Your task to perform on an android device: Search for a new desk on IKEA. Image 0: 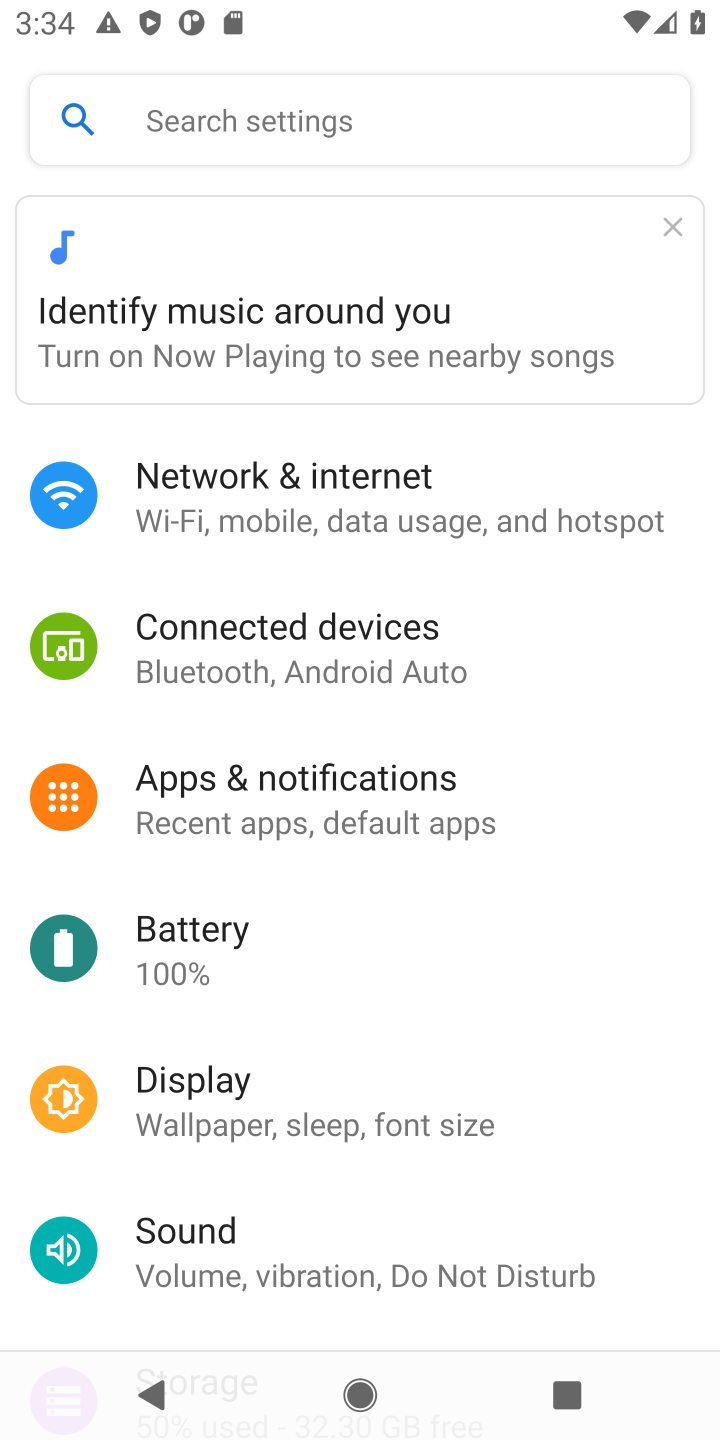
Step 0: press home button
Your task to perform on an android device: Search for a new desk on IKEA. Image 1: 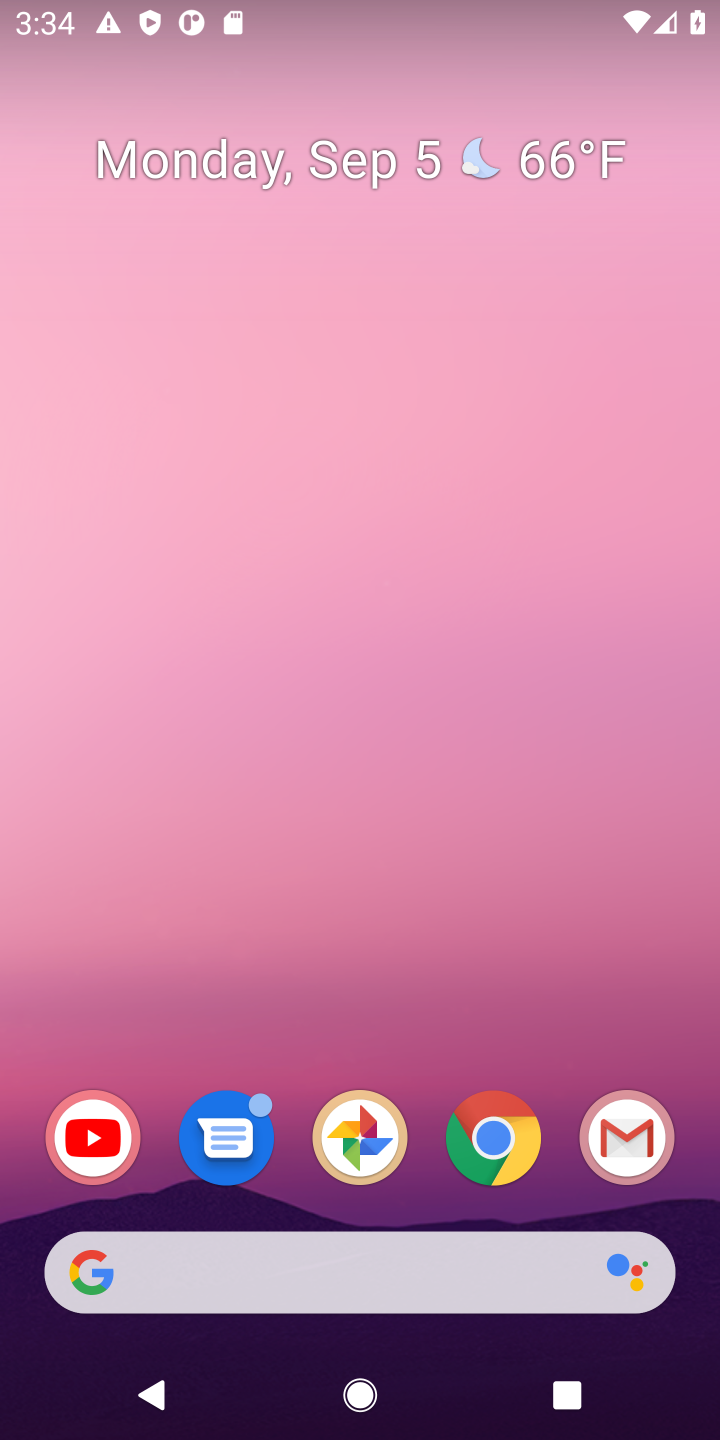
Step 1: click (463, 1136)
Your task to perform on an android device: Search for a new desk on IKEA. Image 2: 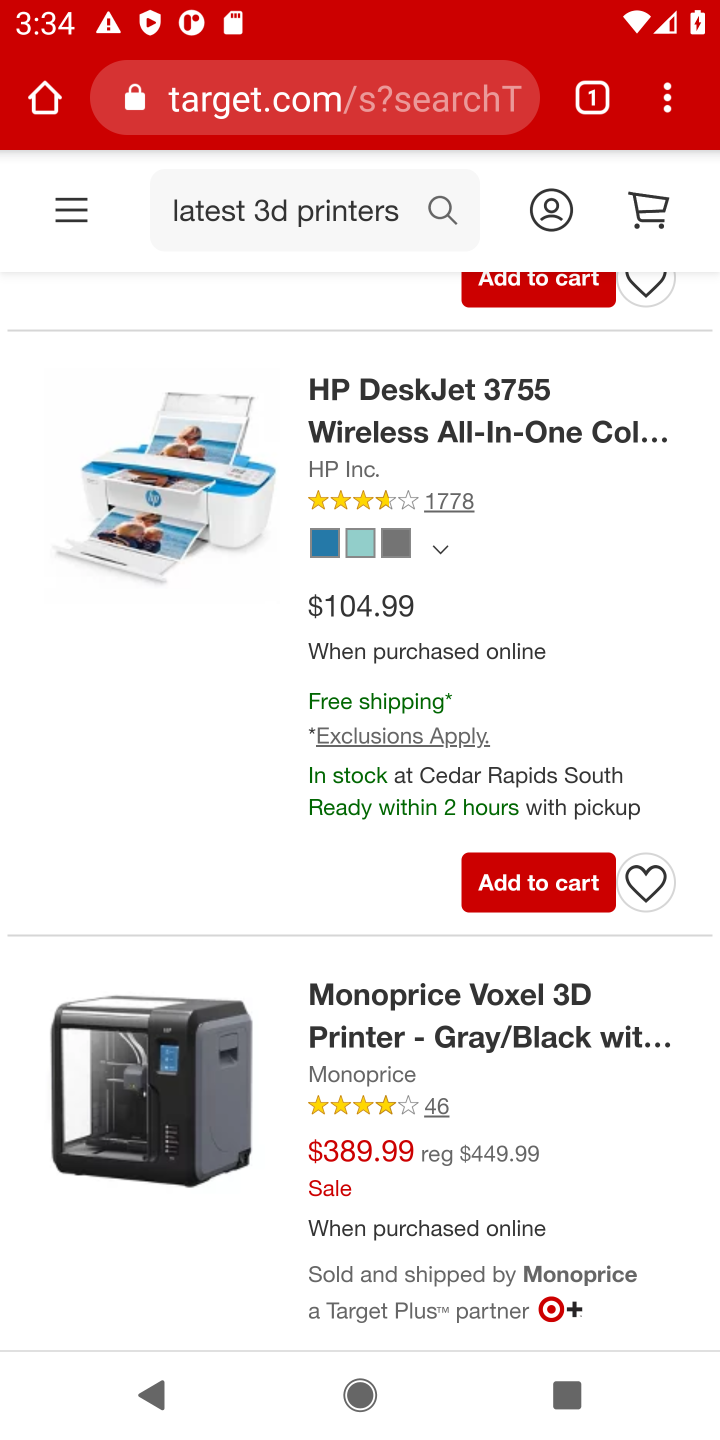
Step 2: click (359, 90)
Your task to perform on an android device: Search for a new desk on IKEA. Image 3: 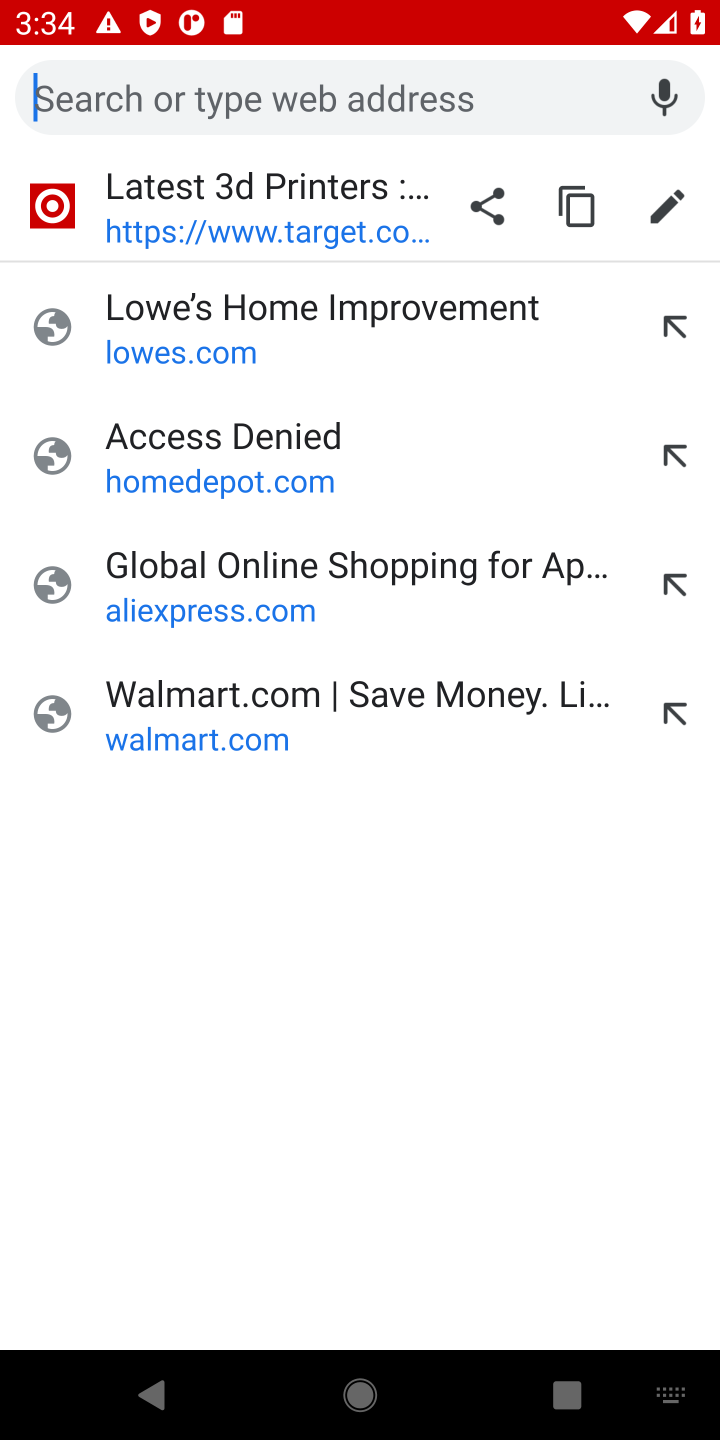
Step 3: type "ikea"
Your task to perform on an android device: Search for a new desk on IKEA. Image 4: 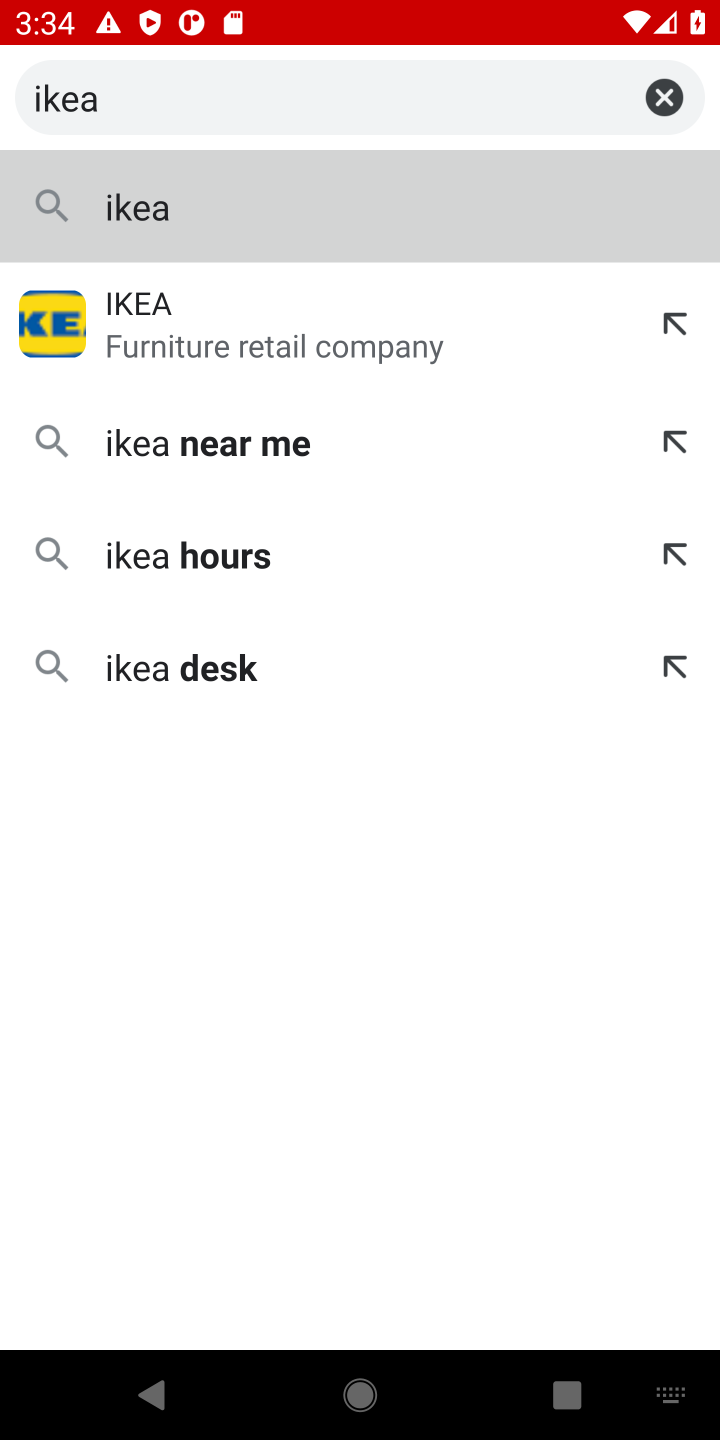
Step 4: click (395, 322)
Your task to perform on an android device: Search for a new desk on IKEA. Image 5: 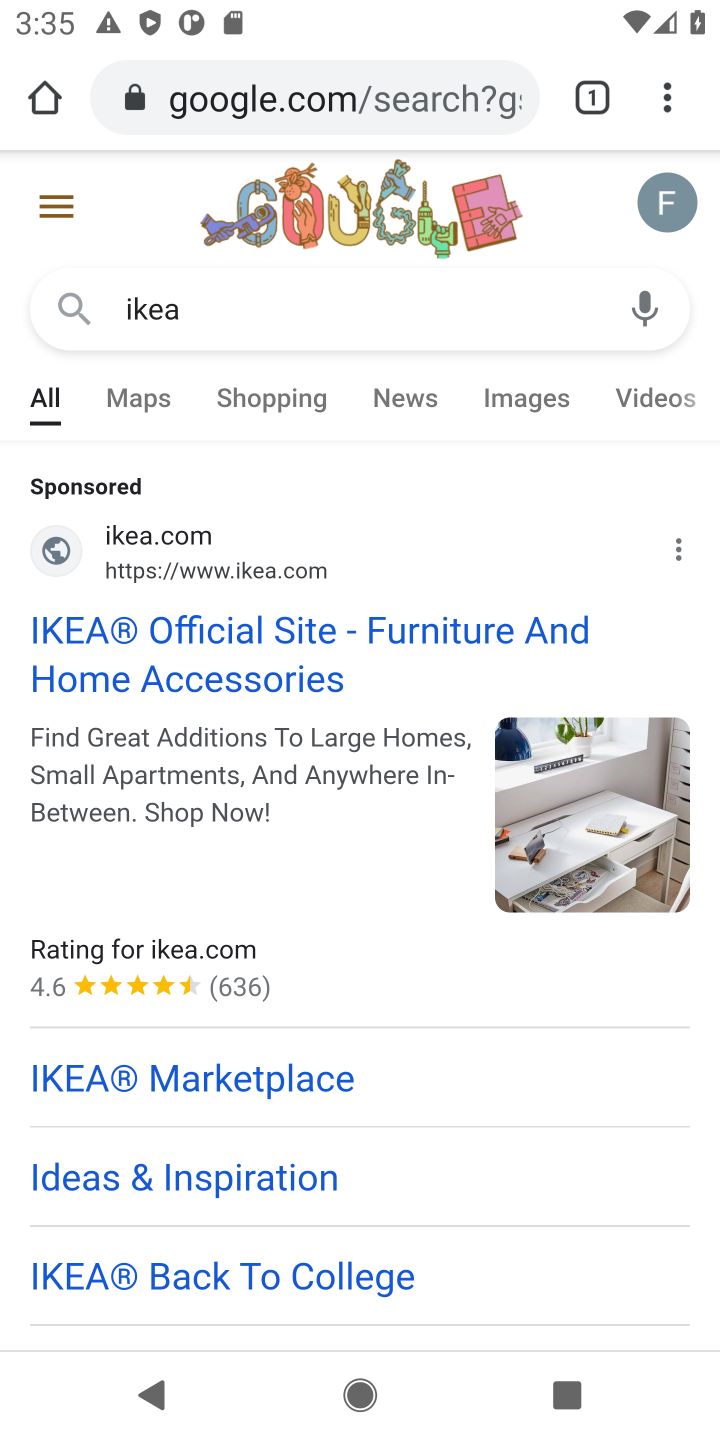
Step 5: click (206, 627)
Your task to perform on an android device: Search for a new desk on IKEA. Image 6: 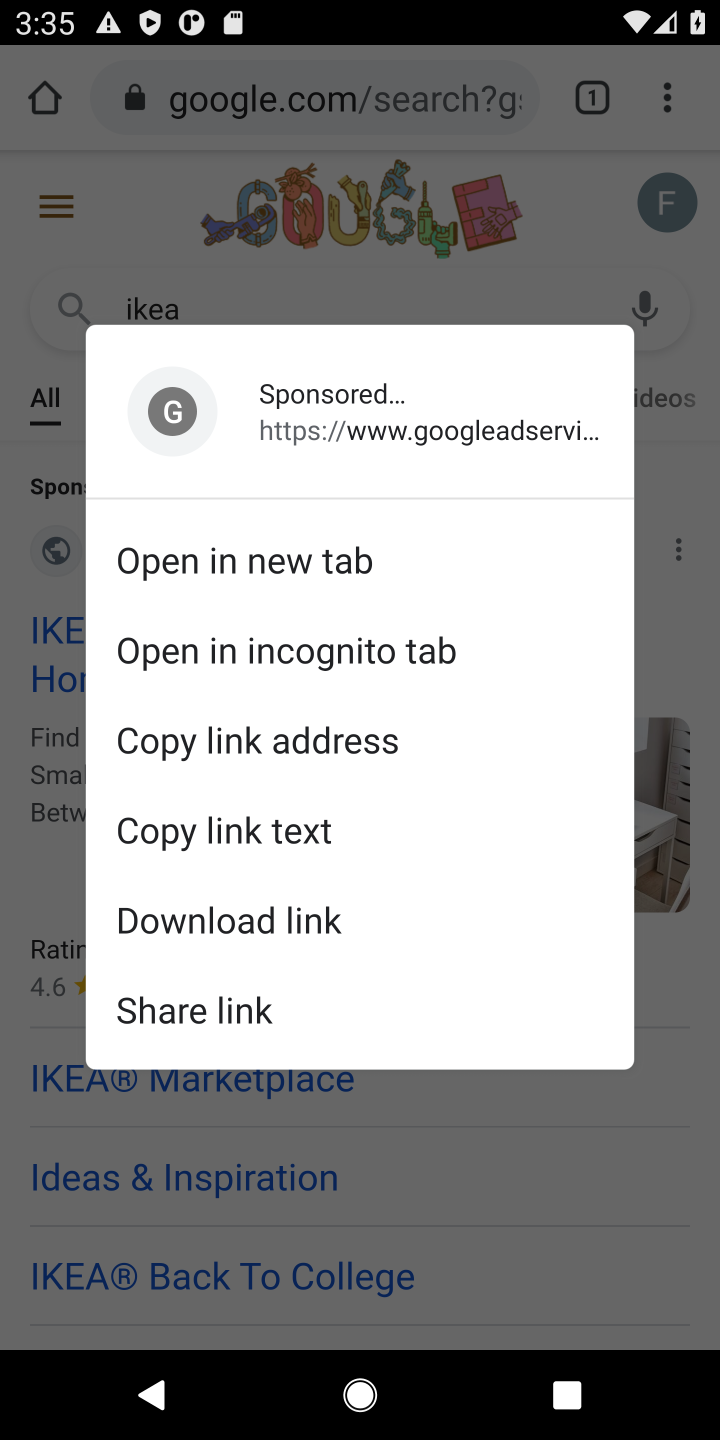
Step 6: click (559, 1131)
Your task to perform on an android device: Search for a new desk on IKEA. Image 7: 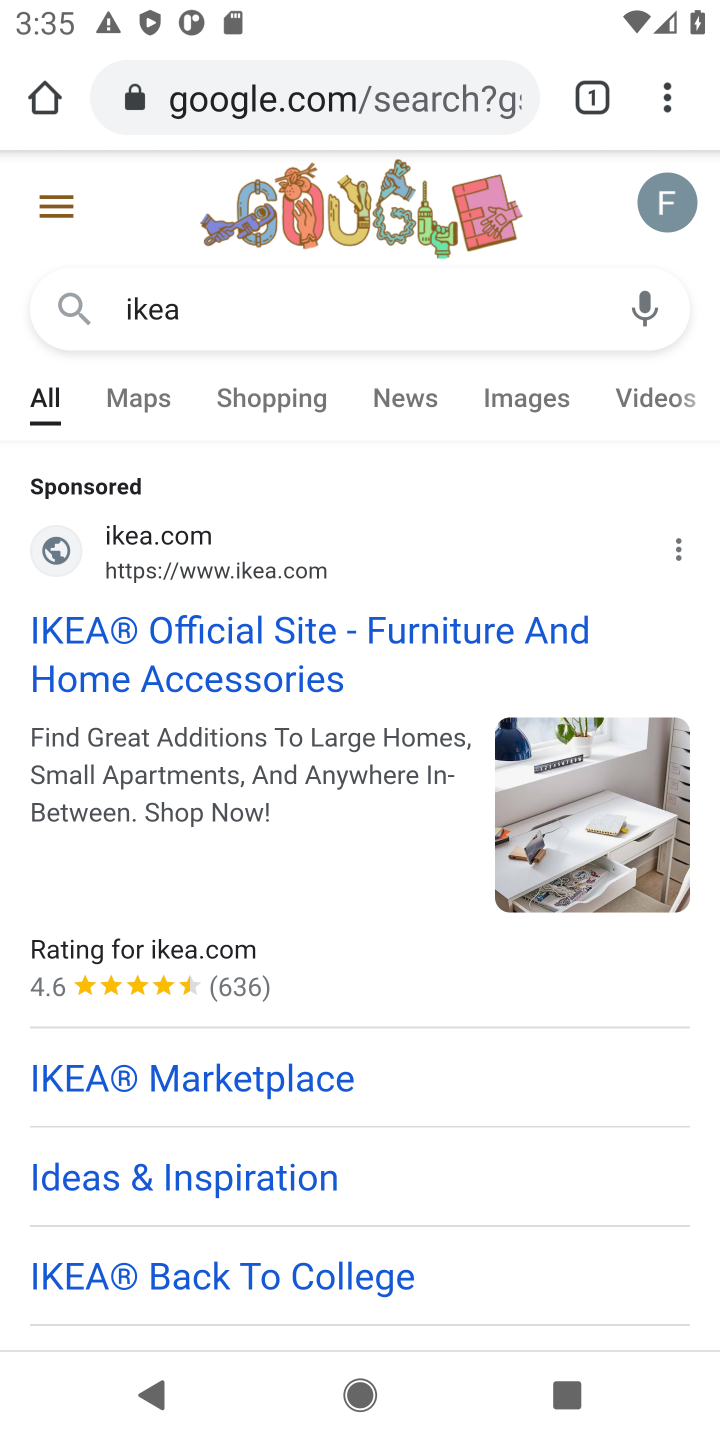
Step 7: click (196, 668)
Your task to perform on an android device: Search for a new desk on IKEA. Image 8: 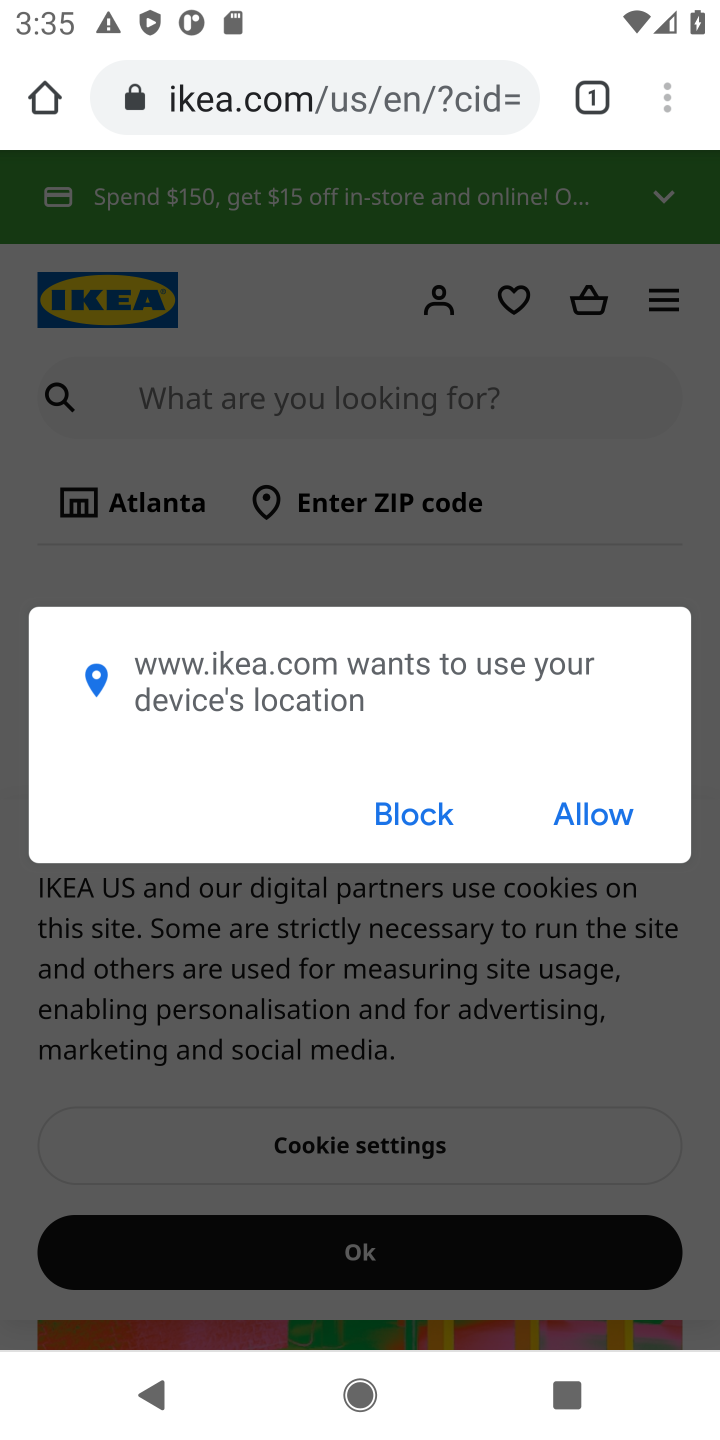
Step 8: click (431, 815)
Your task to perform on an android device: Search for a new desk on IKEA. Image 9: 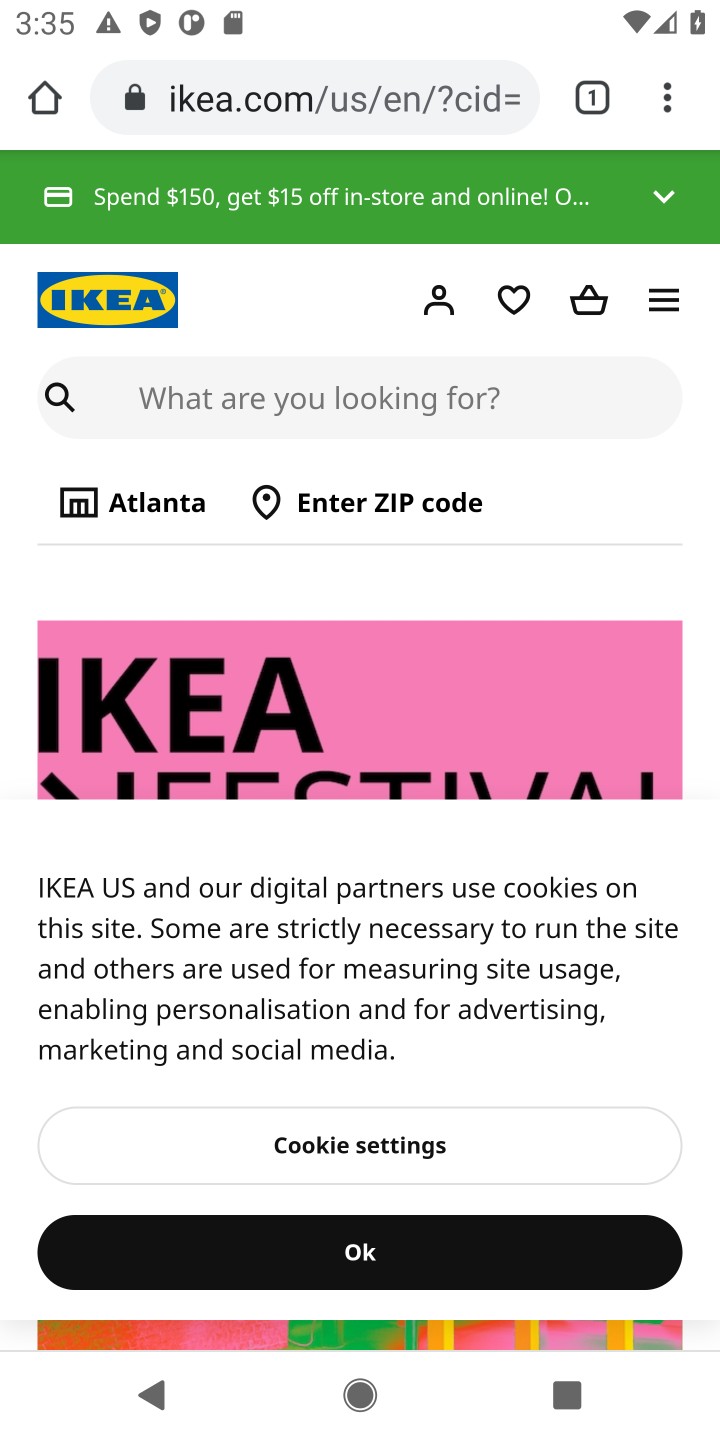
Step 9: click (431, 370)
Your task to perform on an android device: Search for a new desk on IKEA. Image 10: 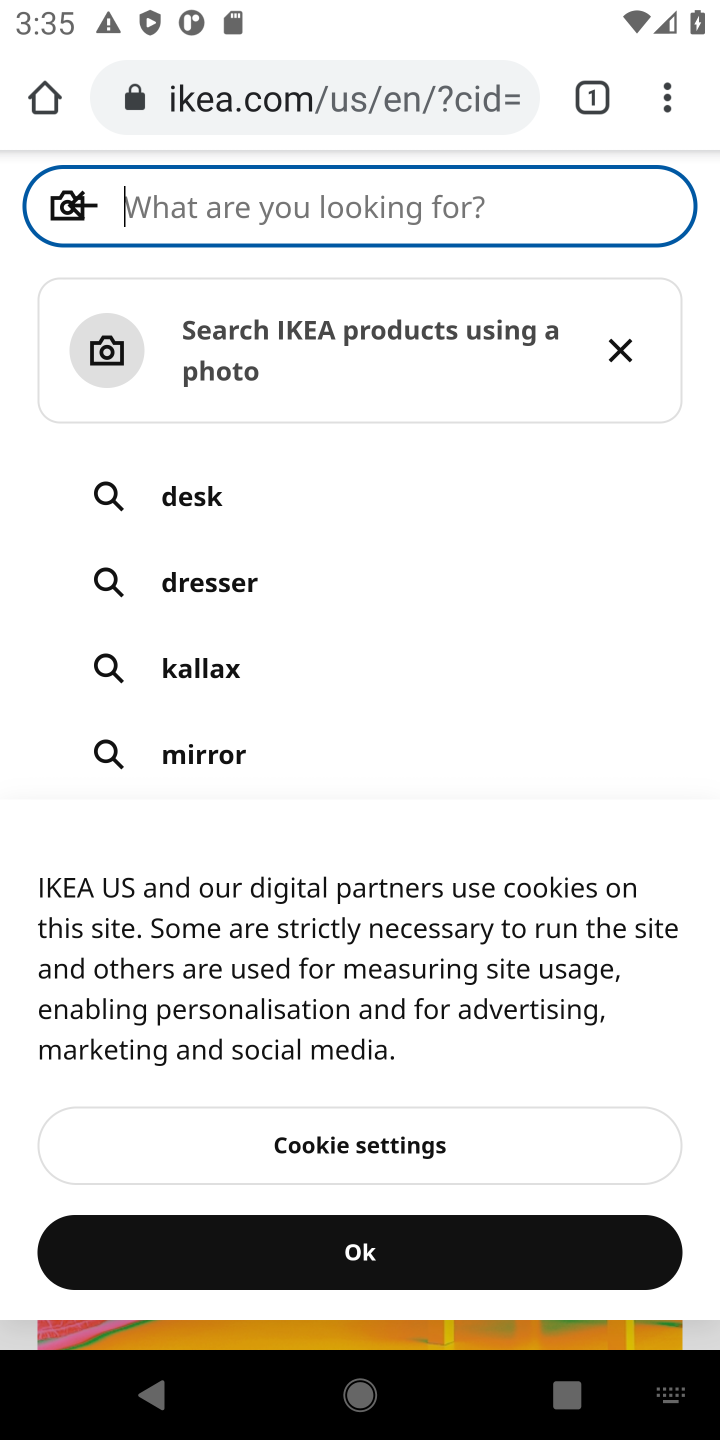
Step 10: type "new desk"
Your task to perform on an android device: Search for a new desk on IKEA. Image 11: 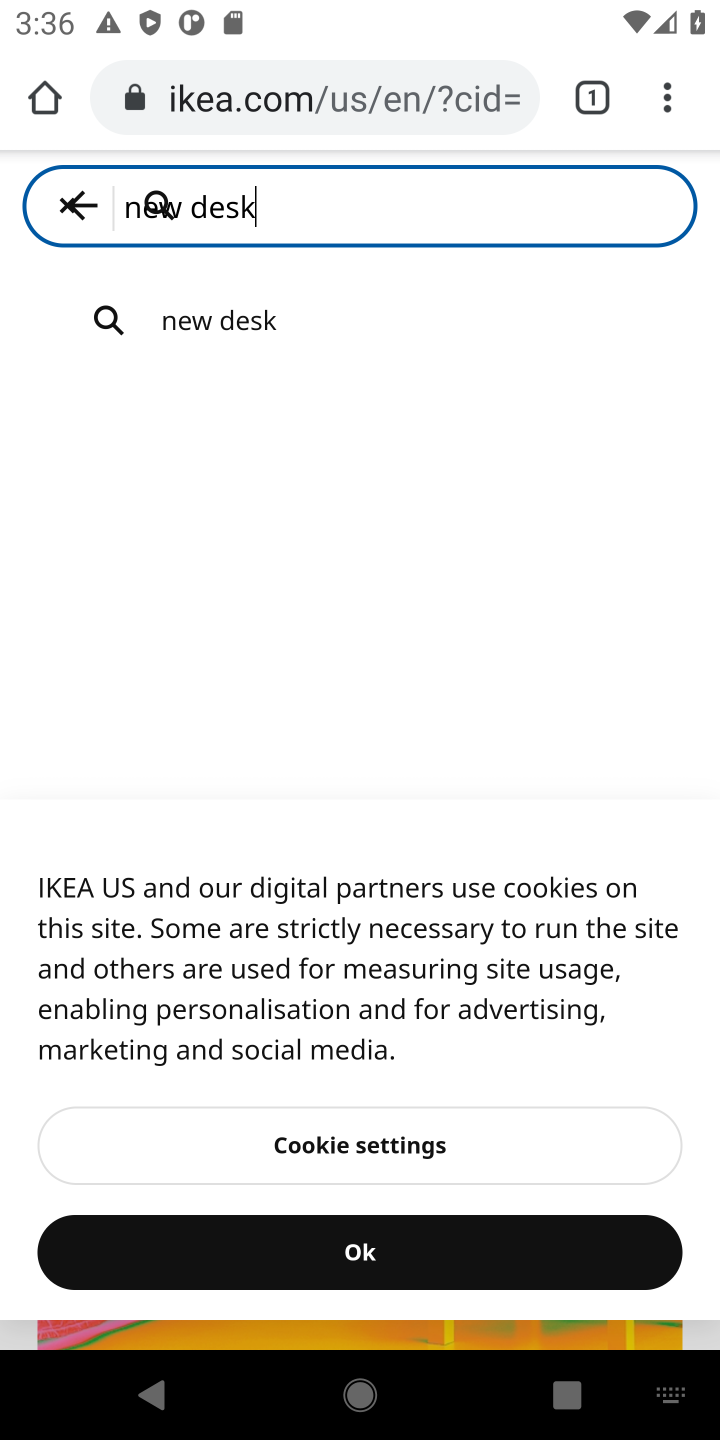
Step 11: click (270, 323)
Your task to perform on an android device: Search for a new desk on IKEA. Image 12: 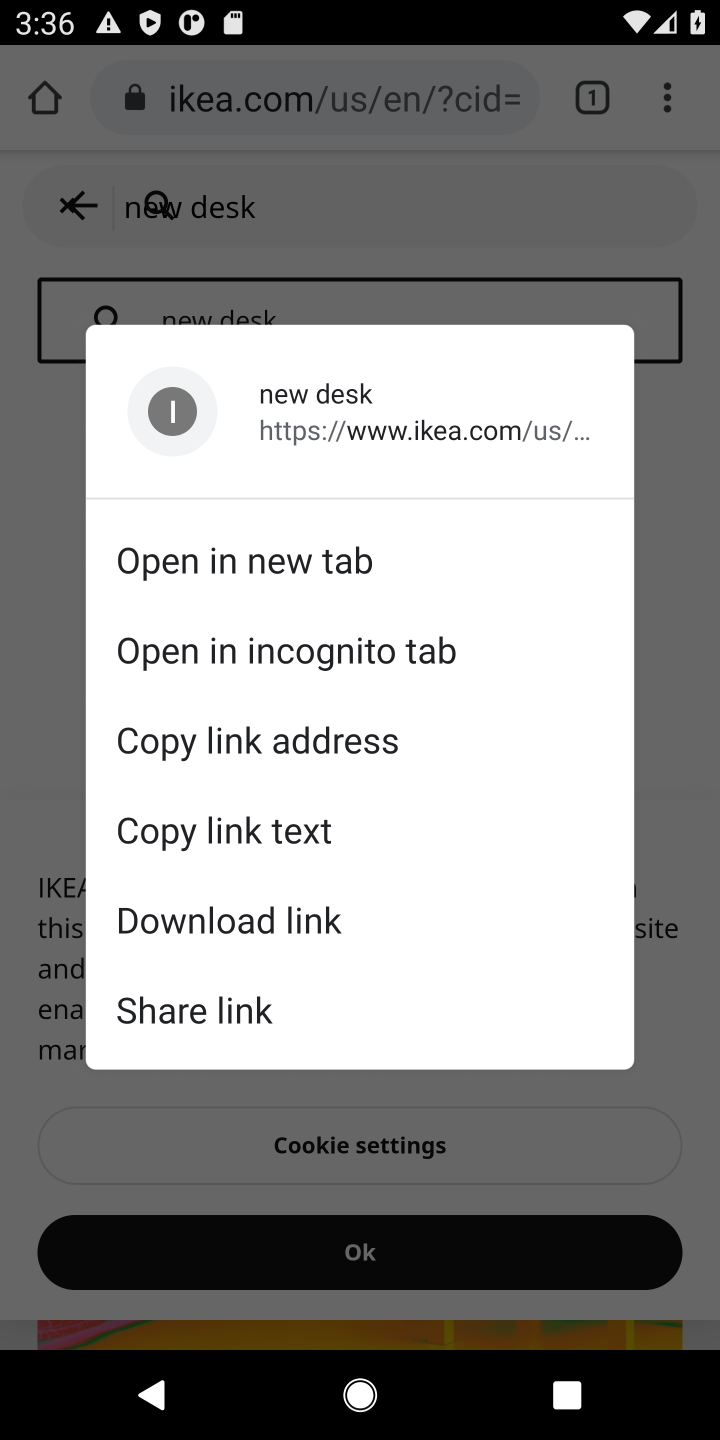
Step 12: click (670, 1186)
Your task to perform on an android device: Search for a new desk on IKEA. Image 13: 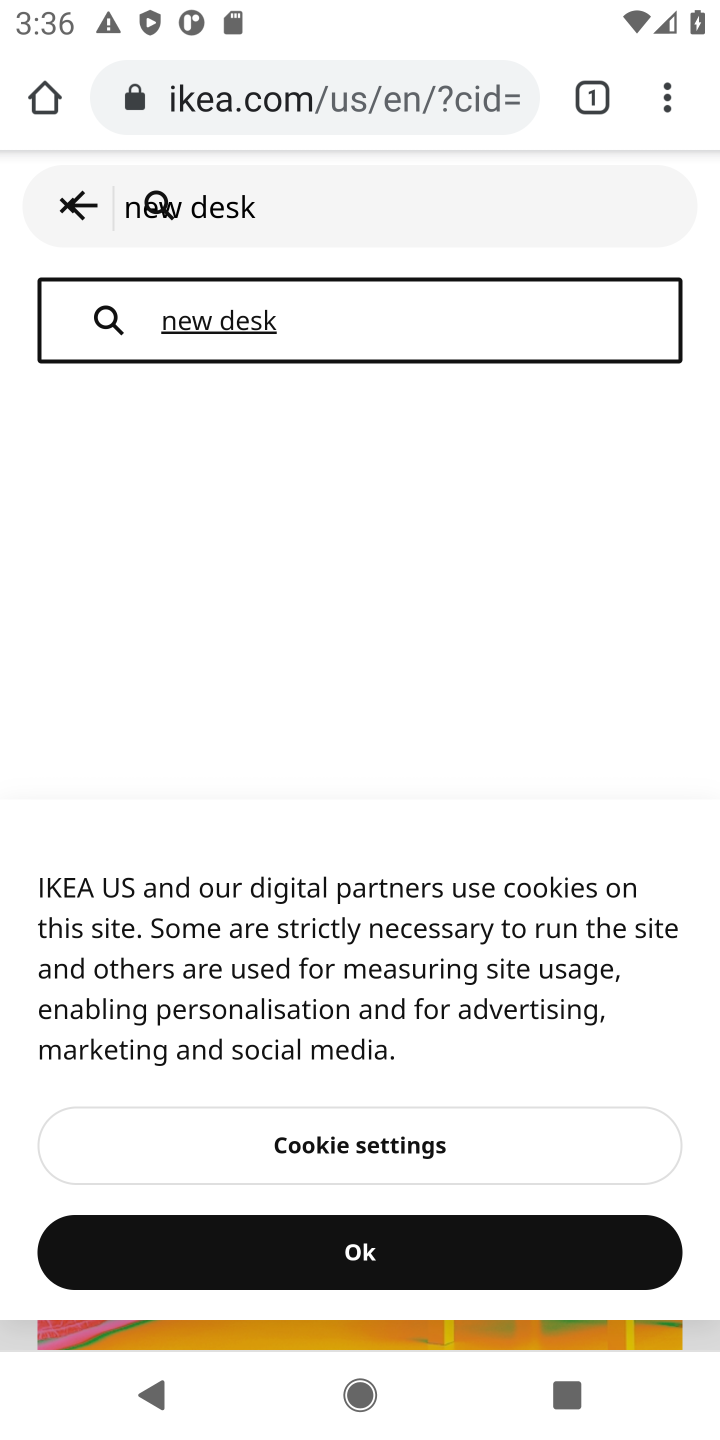
Step 13: click (436, 1252)
Your task to perform on an android device: Search for a new desk on IKEA. Image 14: 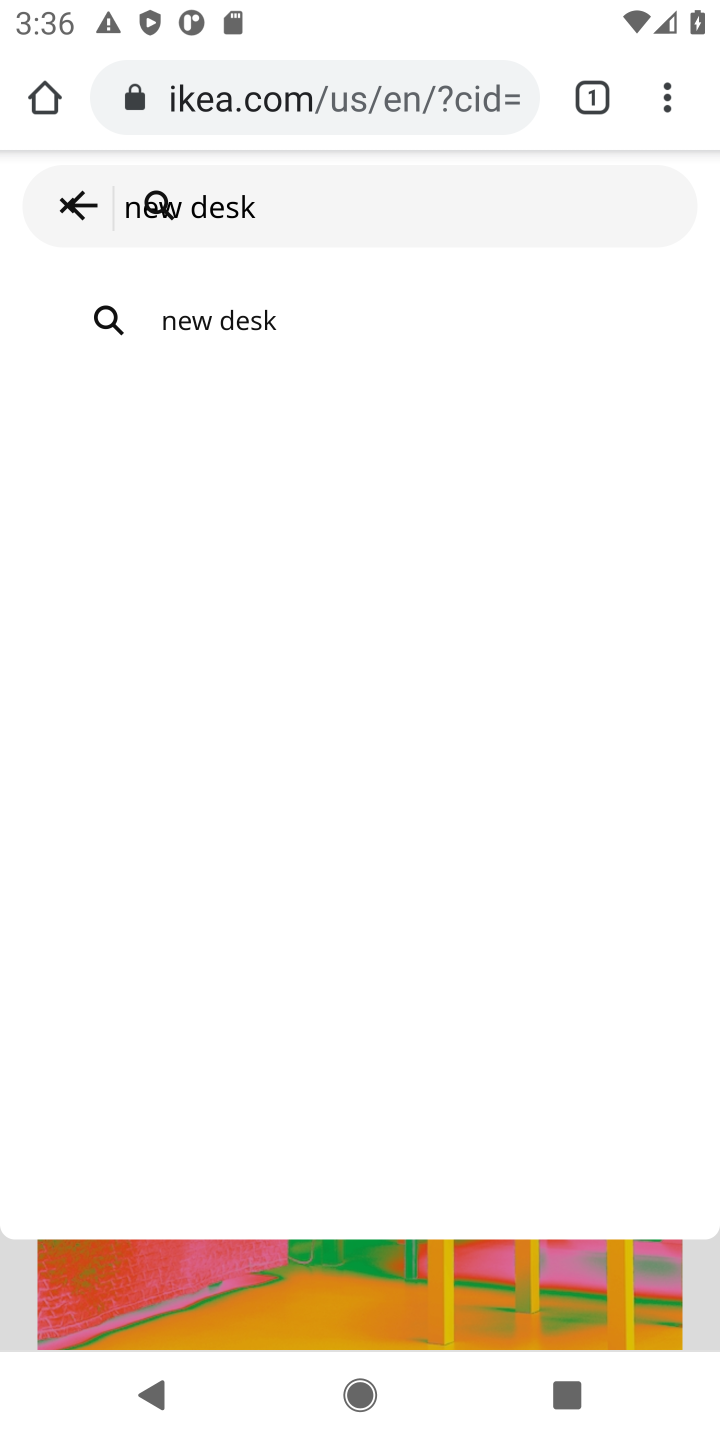
Step 14: drag from (487, 1196) to (332, 552)
Your task to perform on an android device: Search for a new desk on IKEA. Image 15: 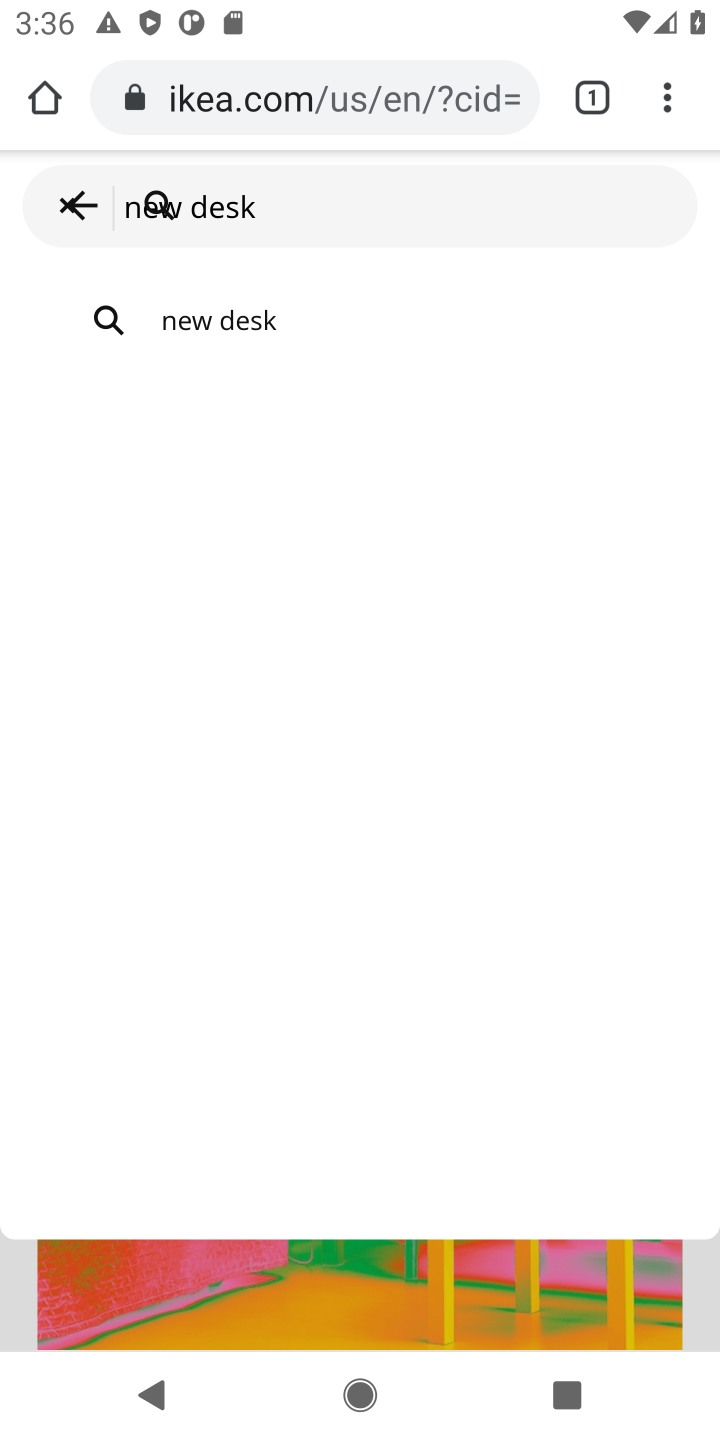
Step 15: click (257, 317)
Your task to perform on an android device: Search for a new desk on IKEA. Image 16: 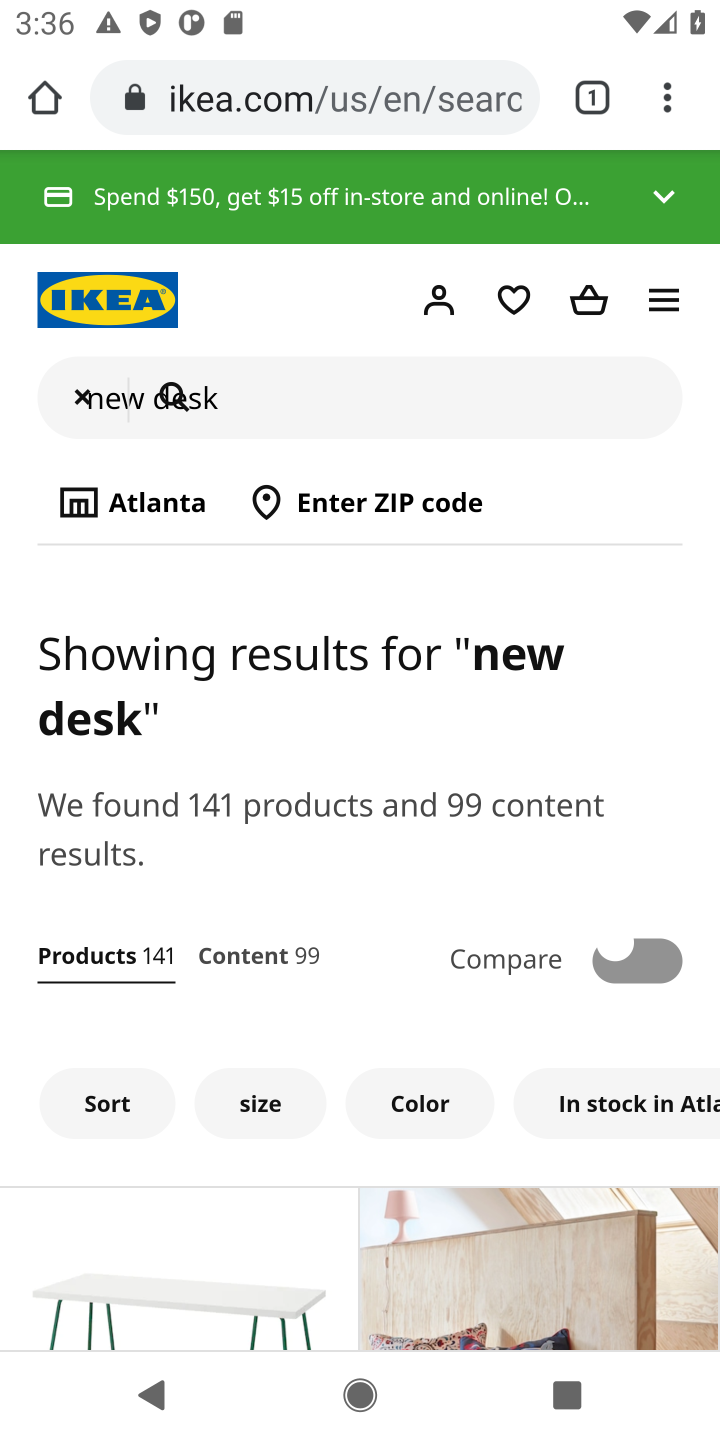
Step 16: task complete